Your task to perform on an android device: turn off location Image 0: 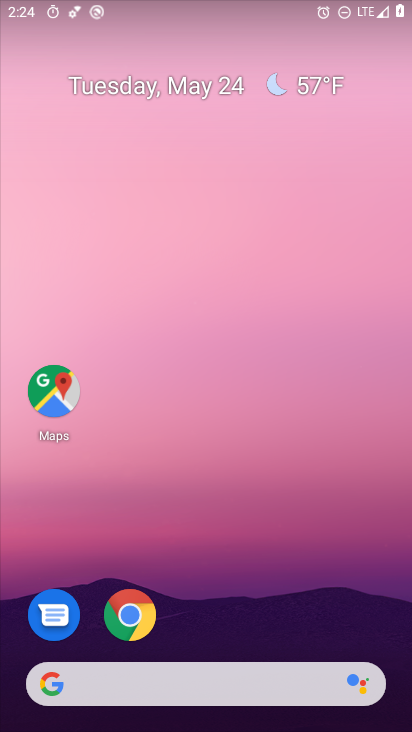
Step 0: drag from (239, 662) to (237, 286)
Your task to perform on an android device: turn off location Image 1: 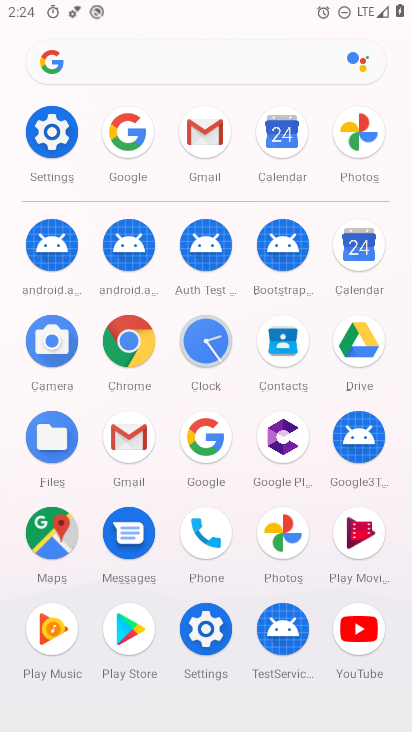
Step 1: click (44, 138)
Your task to perform on an android device: turn off location Image 2: 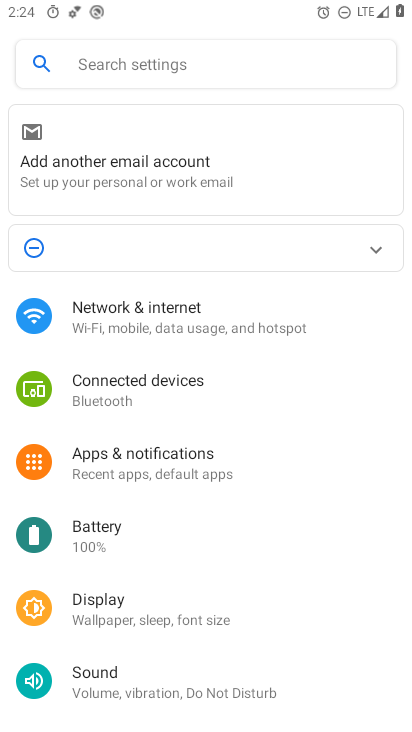
Step 2: drag from (178, 707) to (176, 456)
Your task to perform on an android device: turn off location Image 3: 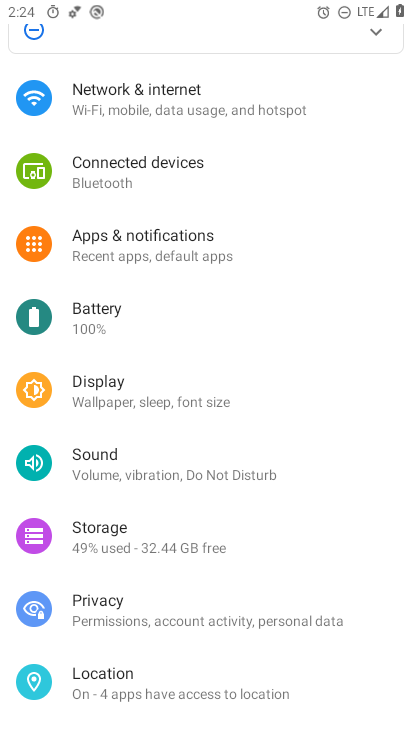
Step 3: click (110, 671)
Your task to perform on an android device: turn off location Image 4: 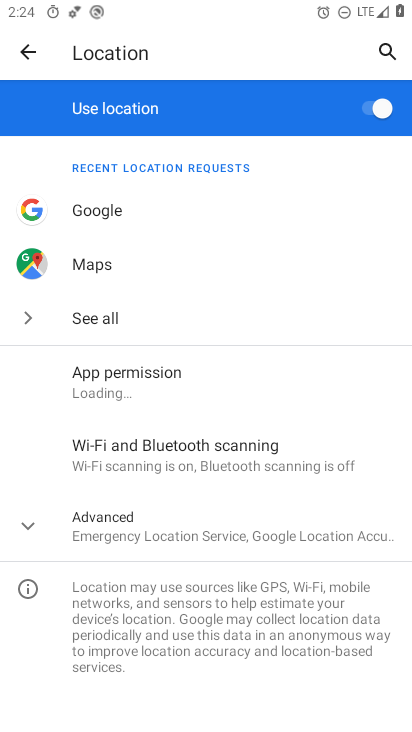
Step 4: click (372, 101)
Your task to perform on an android device: turn off location Image 5: 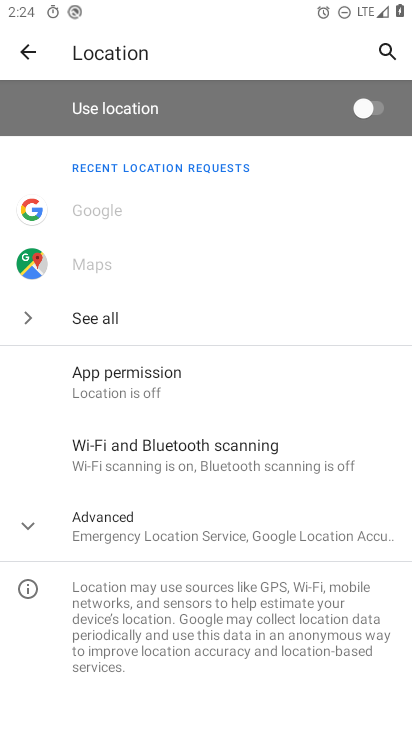
Step 5: task complete